Your task to perform on an android device: check the backup settings in the google photos Image 0: 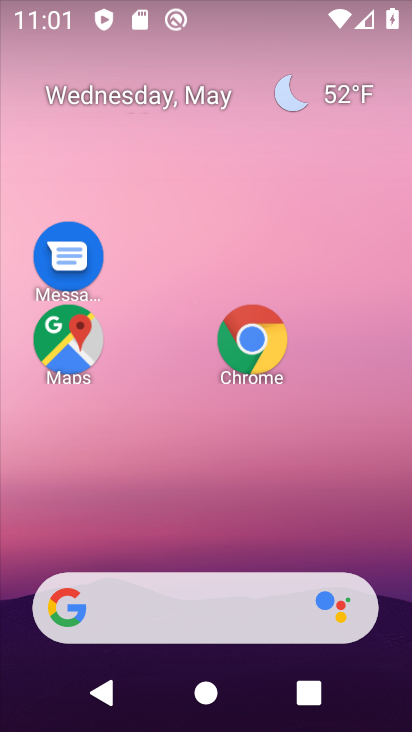
Step 0: drag from (204, 526) to (189, 201)
Your task to perform on an android device: check the backup settings in the google photos Image 1: 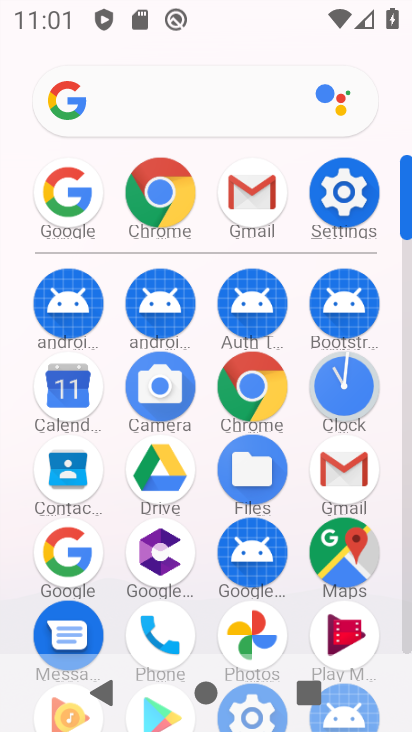
Step 1: drag from (205, 588) to (213, 310)
Your task to perform on an android device: check the backup settings in the google photos Image 2: 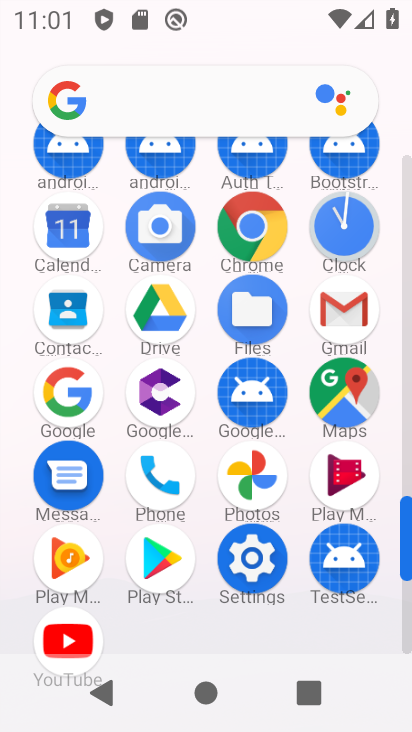
Step 2: click (254, 485)
Your task to perform on an android device: check the backup settings in the google photos Image 3: 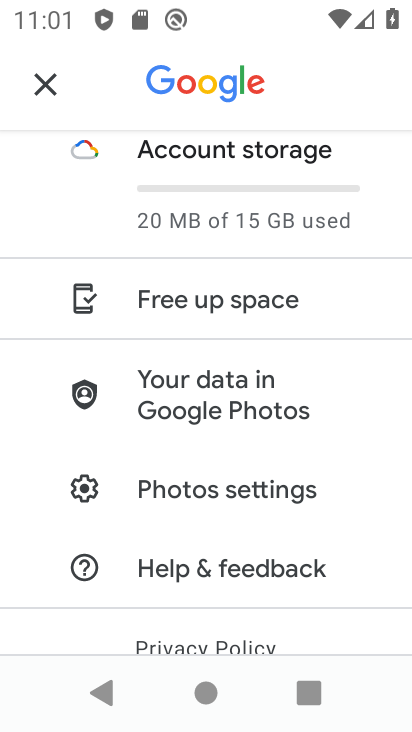
Step 3: drag from (211, 582) to (215, 442)
Your task to perform on an android device: check the backup settings in the google photos Image 4: 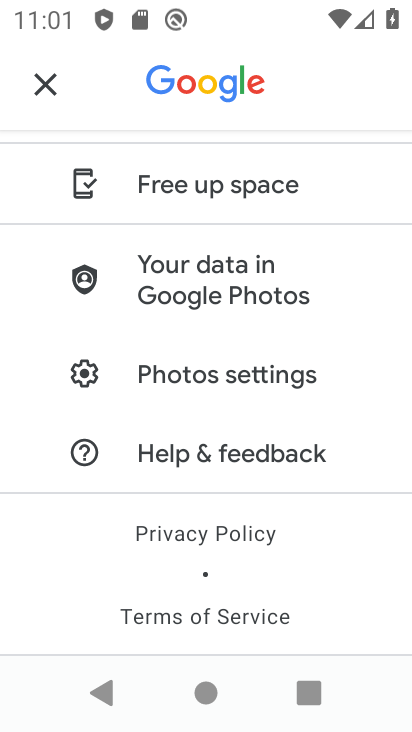
Step 4: drag from (172, 302) to (204, 498)
Your task to perform on an android device: check the backup settings in the google photos Image 5: 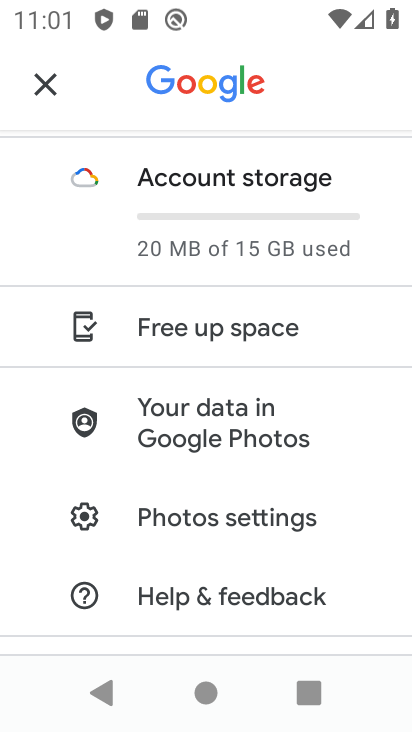
Step 5: click (200, 514)
Your task to perform on an android device: check the backup settings in the google photos Image 6: 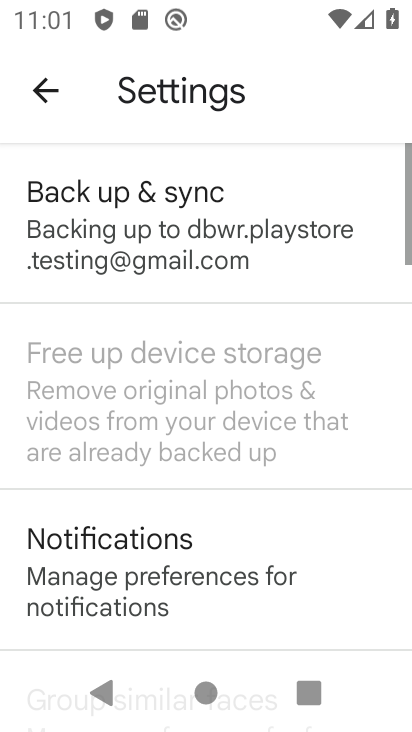
Step 6: click (162, 223)
Your task to perform on an android device: check the backup settings in the google photos Image 7: 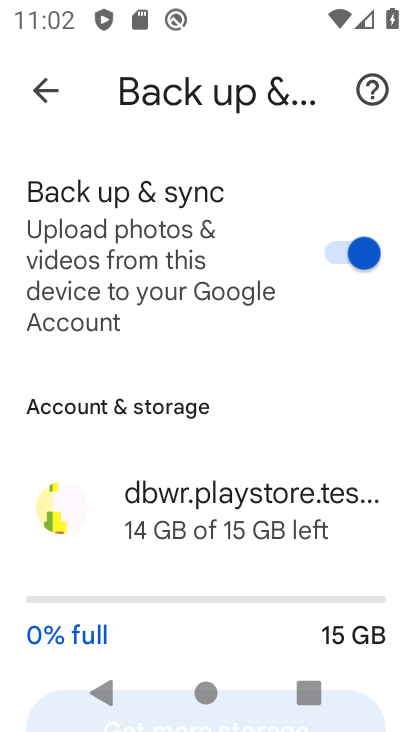
Step 7: task complete